Your task to perform on an android device: open app "Adobe Acrobat Reader: Edit PDF" (install if not already installed) Image 0: 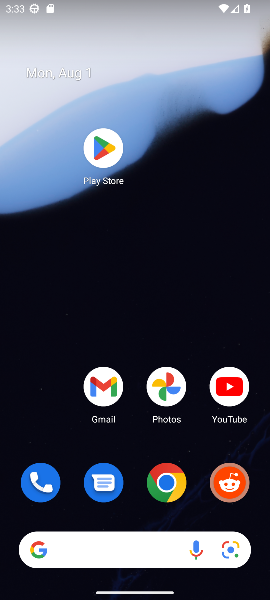
Step 0: click (100, 147)
Your task to perform on an android device: open app "Adobe Acrobat Reader: Edit PDF" (install if not already installed) Image 1: 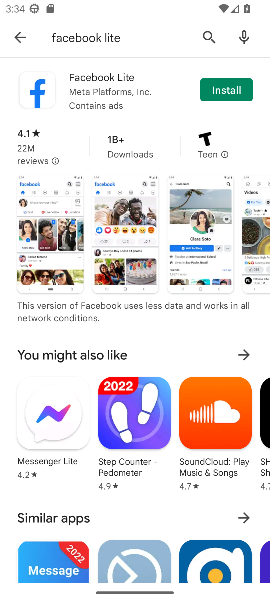
Step 1: click (208, 33)
Your task to perform on an android device: open app "Adobe Acrobat Reader: Edit PDF" (install if not already installed) Image 2: 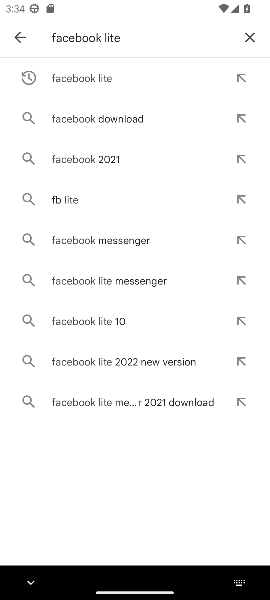
Step 2: click (249, 34)
Your task to perform on an android device: open app "Adobe Acrobat Reader: Edit PDF" (install if not already installed) Image 3: 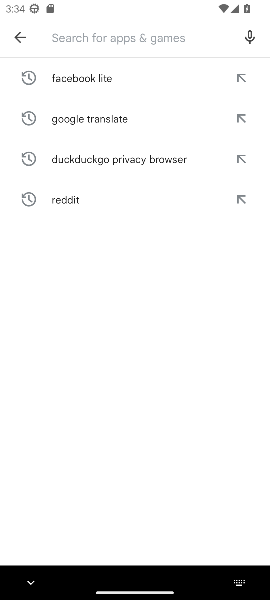
Step 3: type "Adobe Acrobat Reader: Edit PDF"
Your task to perform on an android device: open app "Adobe Acrobat Reader: Edit PDF" (install if not already installed) Image 4: 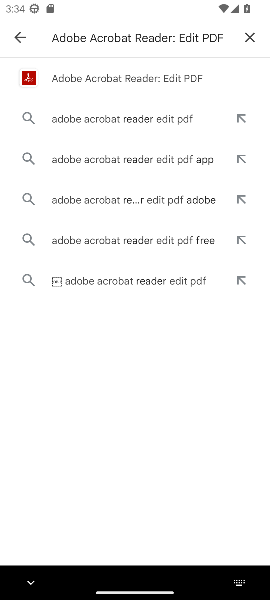
Step 4: click (119, 76)
Your task to perform on an android device: open app "Adobe Acrobat Reader: Edit PDF" (install if not already installed) Image 5: 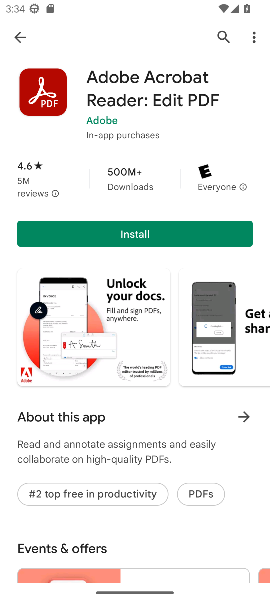
Step 5: click (143, 232)
Your task to perform on an android device: open app "Adobe Acrobat Reader: Edit PDF" (install if not already installed) Image 6: 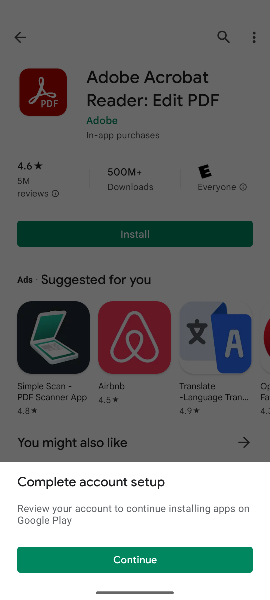
Step 6: click (129, 556)
Your task to perform on an android device: open app "Adobe Acrobat Reader: Edit PDF" (install if not already installed) Image 7: 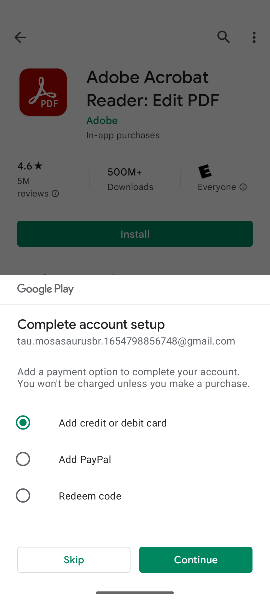
Step 7: click (90, 558)
Your task to perform on an android device: open app "Adobe Acrobat Reader: Edit PDF" (install if not already installed) Image 8: 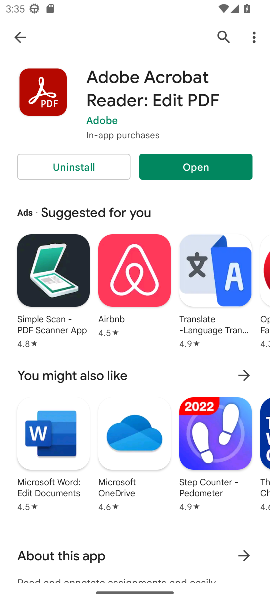
Step 8: click (188, 167)
Your task to perform on an android device: open app "Adobe Acrobat Reader: Edit PDF" (install if not already installed) Image 9: 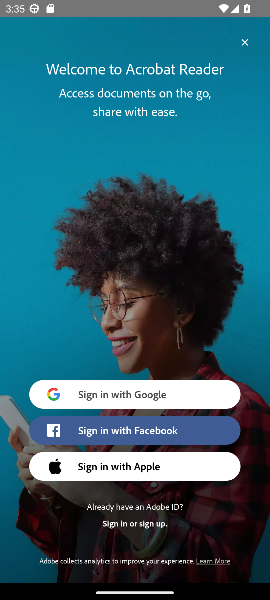
Step 9: task complete